Your task to perform on an android device: Toggle the flashlight Image 0: 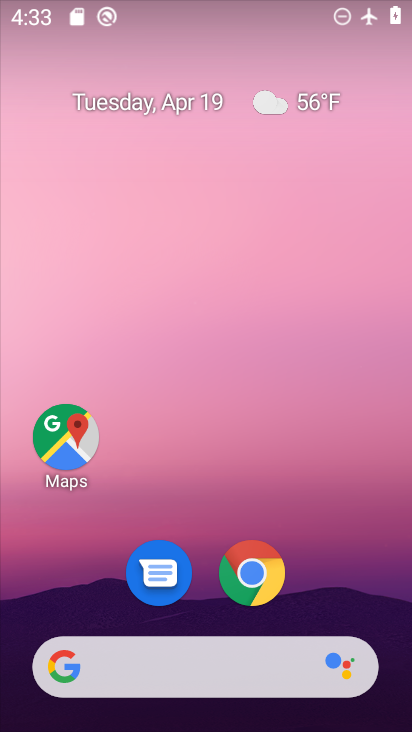
Step 0: drag from (180, 5) to (203, 539)
Your task to perform on an android device: Toggle the flashlight Image 1: 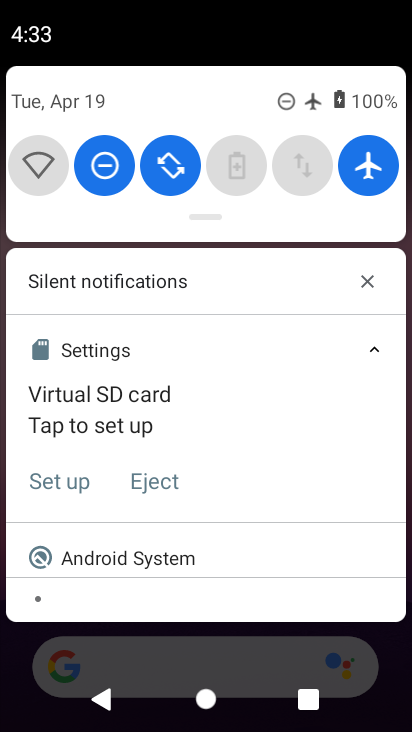
Step 1: task complete